Your task to perform on an android device: Open Youtube and go to "Your channel" Image 0: 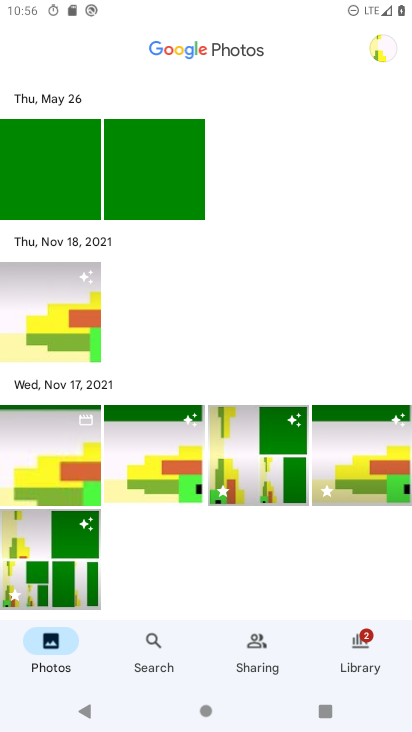
Step 0: press home button
Your task to perform on an android device: Open Youtube and go to "Your channel" Image 1: 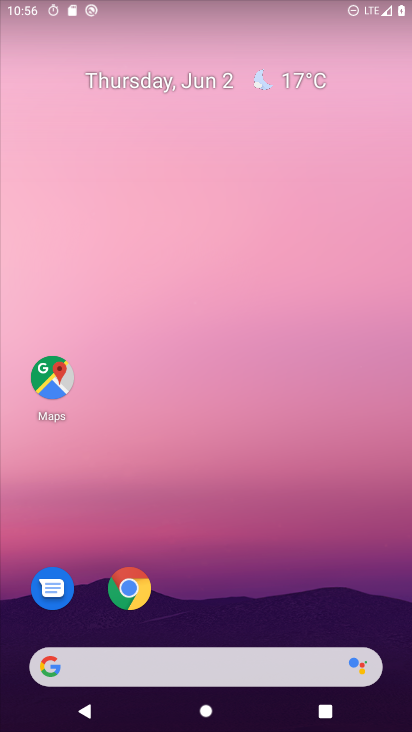
Step 1: drag from (242, 418) to (248, 348)
Your task to perform on an android device: Open Youtube and go to "Your channel" Image 2: 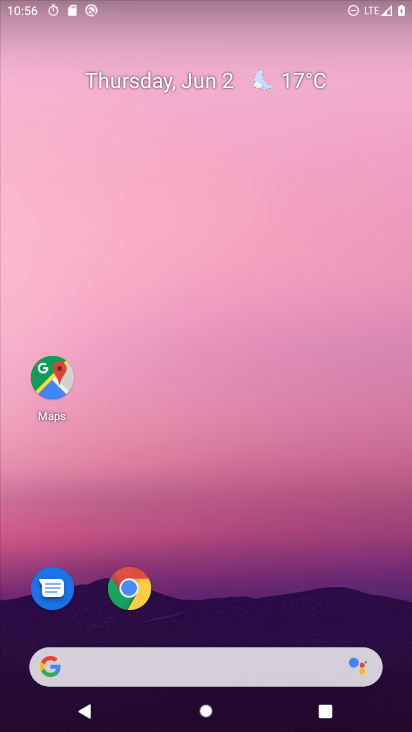
Step 2: drag from (250, 642) to (297, 33)
Your task to perform on an android device: Open Youtube and go to "Your channel" Image 3: 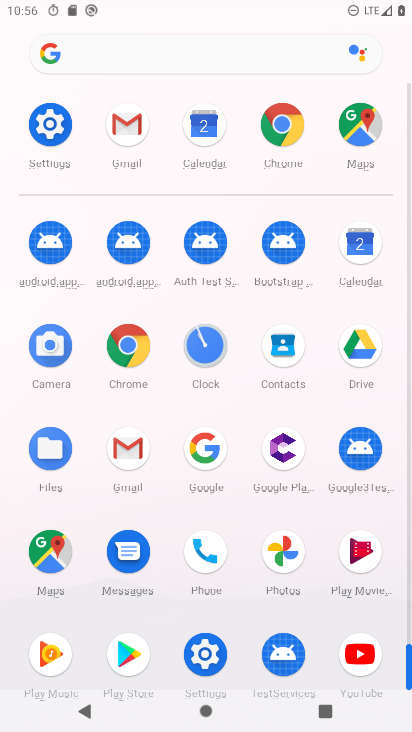
Step 3: click (373, 659)
Your task to perform on an android device: Open Youtube and go to "Your channel" Image 4: 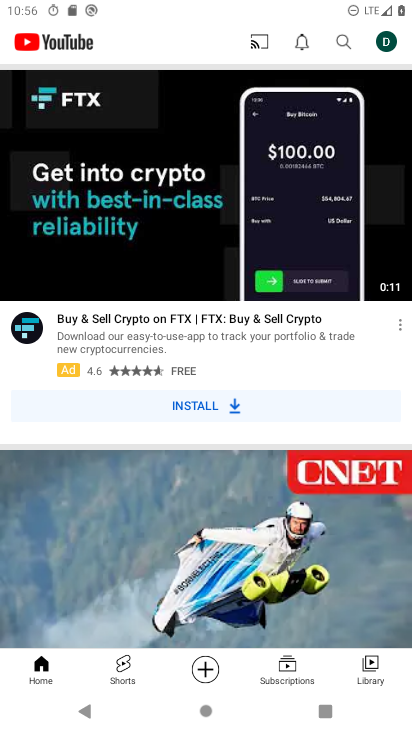
Step 4: click (391, 34)
Your task to perform on an android device: Open Youtube and go to "Your channel" Image 5: 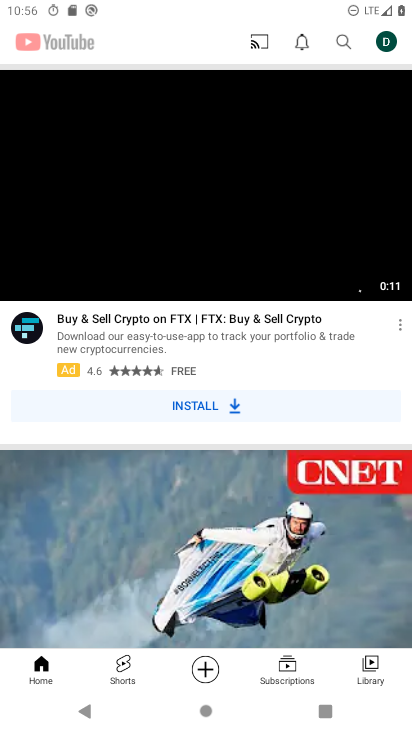
Step 5: click (389, 43)
Your task to perform on an android device: Open Youtube and go to "Your channel" Image 6: 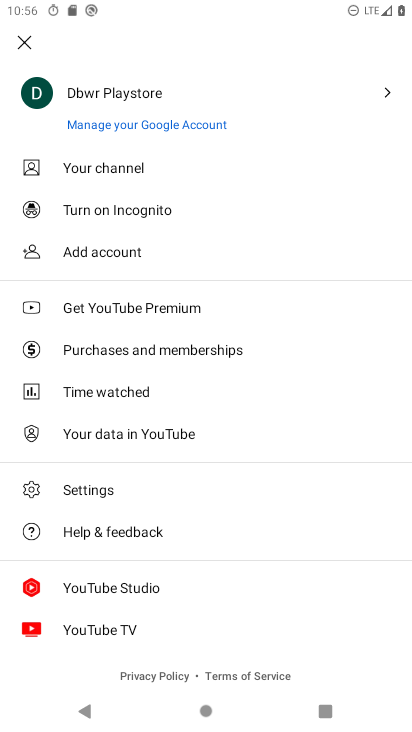
Step 6: click (133, 170)
Your task to perform on an android device: Open Youtube and go to "Your channel" Image 7: 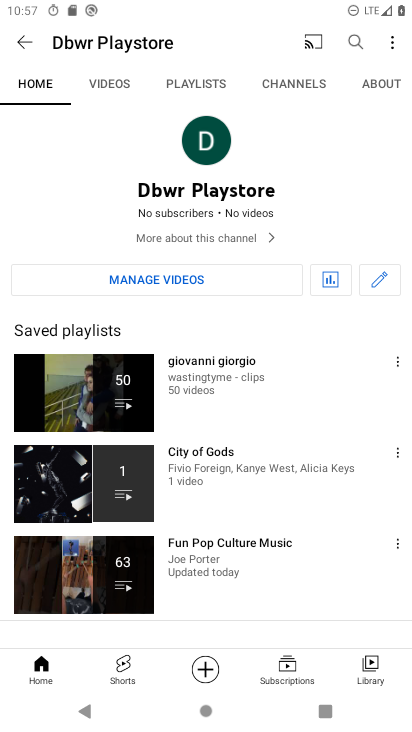
Step 7: task complete